Your task to perform on an android device: What is the recent news? Image 0: 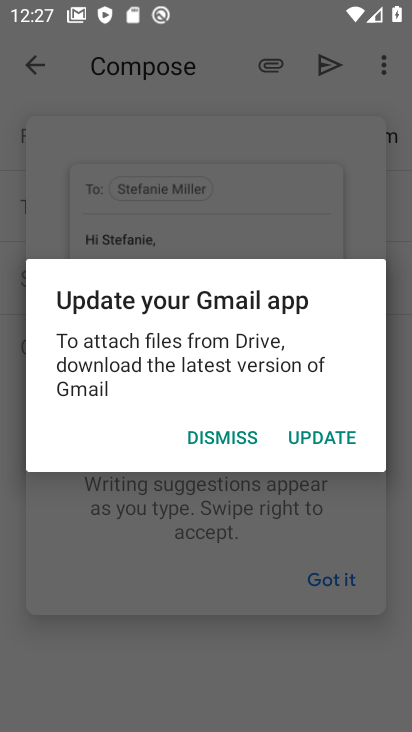
Step 0: press home button
Your task to perform on an android device: What is the recent news? Image 1: 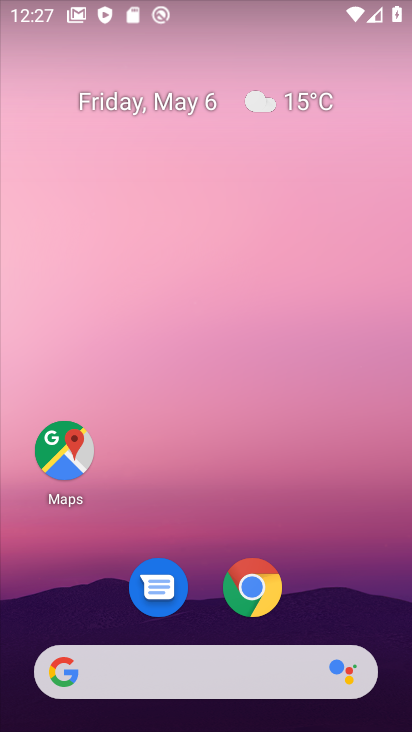
Step 1: click (63, 673)
Your task to perform on an android device: What is the recent news? Image 2: 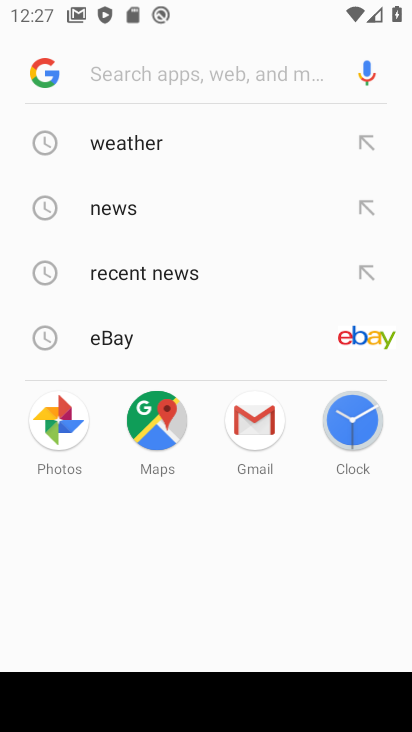
Step 2: click (166, 274)
Your task to perform on an android device: What is the recent news? Image 3: 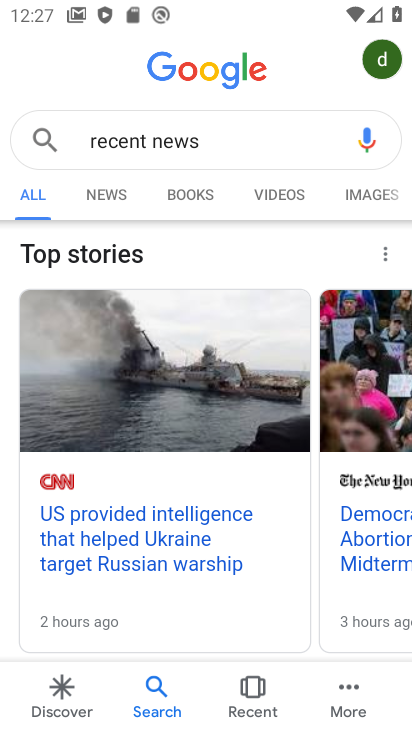
Step 3: click (115, 194)
Your task to perform on an android device: What is the recent news? Image 4: 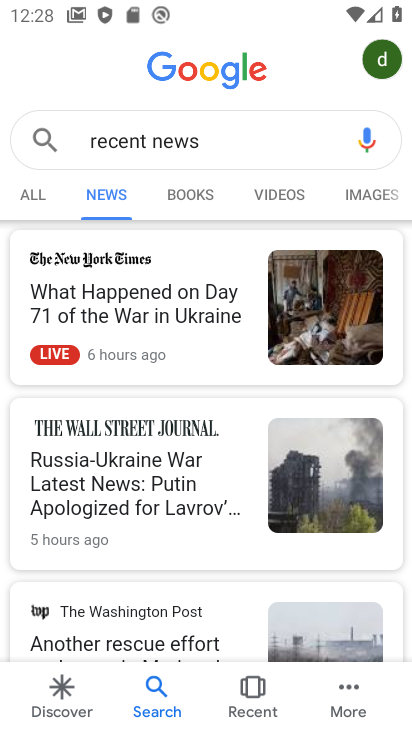
Step 4: task complete